Your task to perform on an android device: turn off notifications in google photos Image 0: 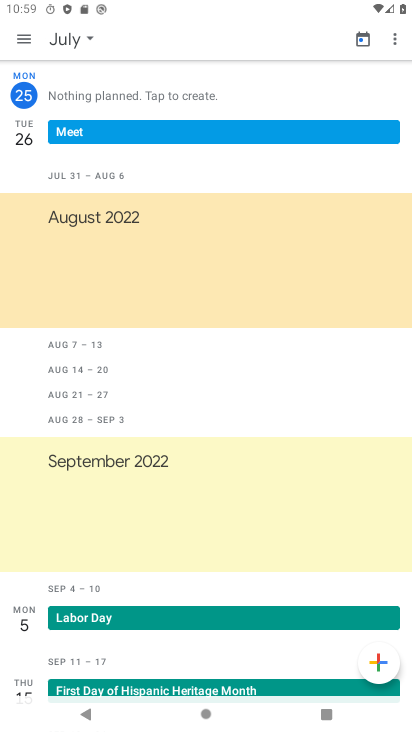
Step 0: press home button
Your task to perform on an android device: turn off notifications in google photos Image 1: 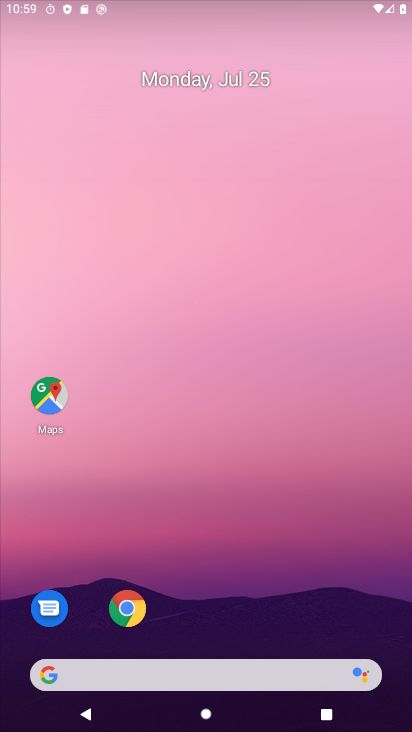
Step 1: drag from (222, 675) to (387, 13)
Your task to perform on an android device: turn off notifications in google photos Image 2: 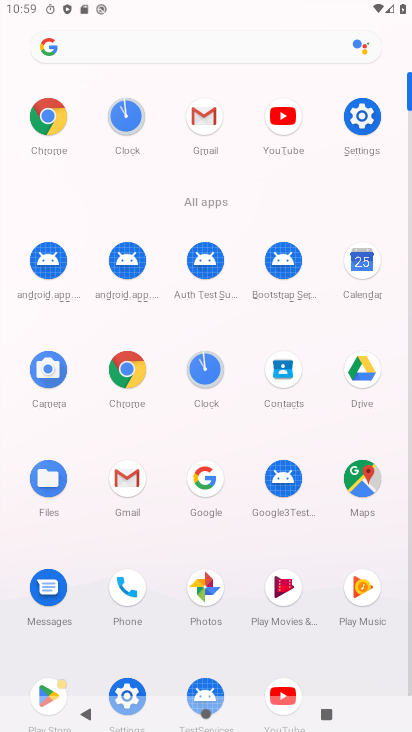
Step 2: click (195, 590)
Your task to perform on an android device: turn off notifications in google photos Image 3: 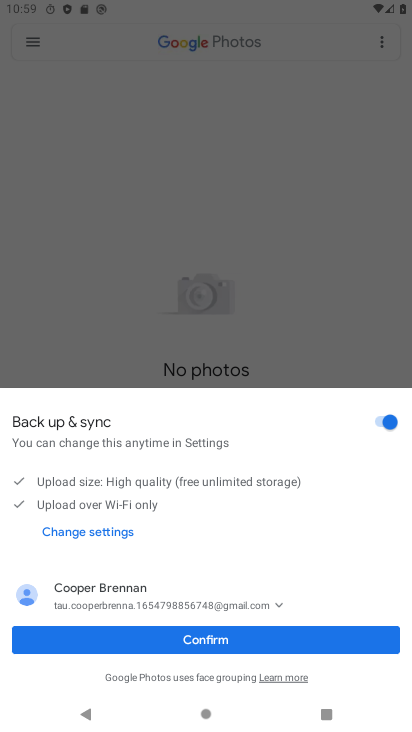
Step 3: press home button
Your task to perform on an android device: turn off notifications in google photos Image 4: 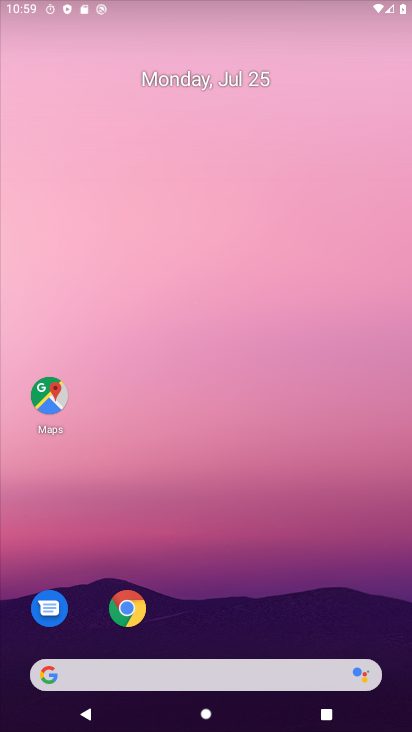
Step 4: drag from (223, 642) to (279, 23)
Your task to perform on an android device: turn off notifications in google photos Image 5: 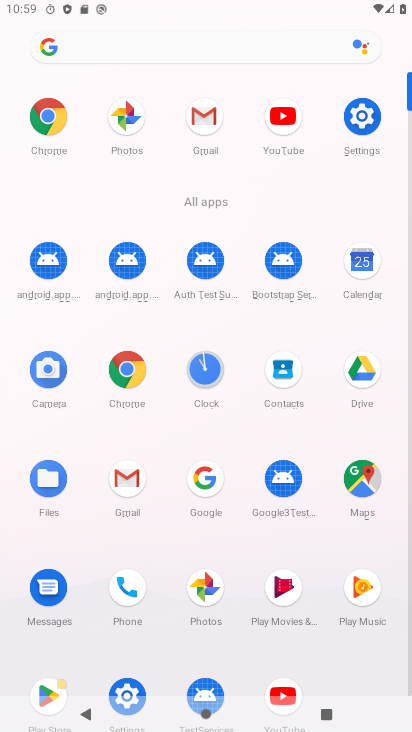
Step 5: click (206, 584)
Your task to perform on an android device: turn off notifications in google photos Image 6: 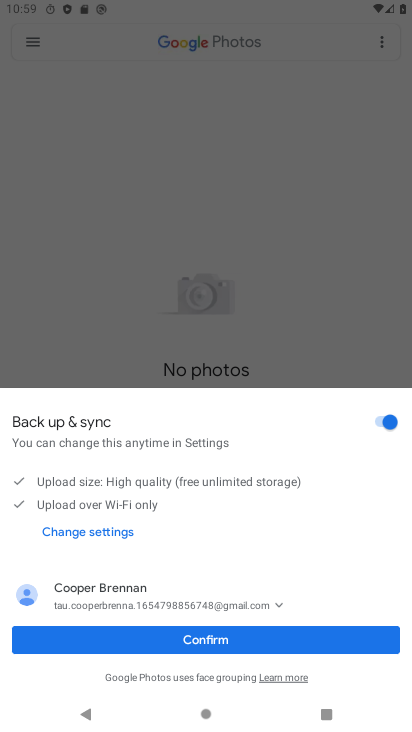
Step 6: click (182, 638)
Your task to perform on an android device: turn off notifications in google photos Image 7: 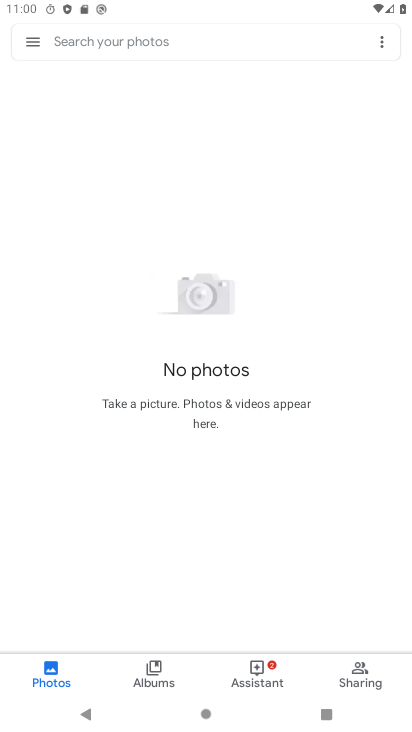
Step 7: click (36, 44)
Your task to perform on an android device: turn off notifications in google photos Image 8: 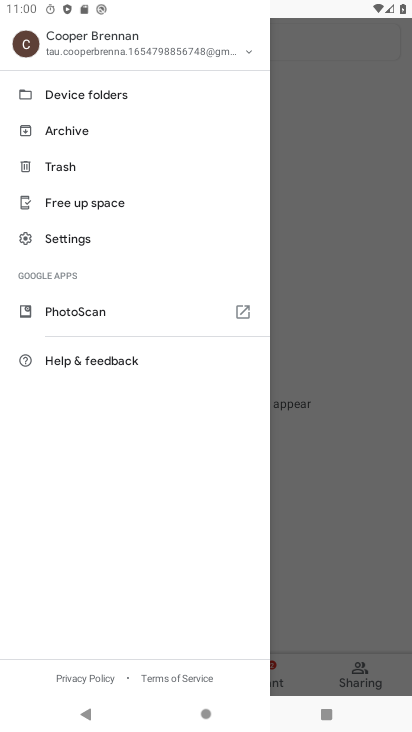
Step 8: click (67, 244)
Your task to perform on an android device: turn off notifications in google photos Image 9: 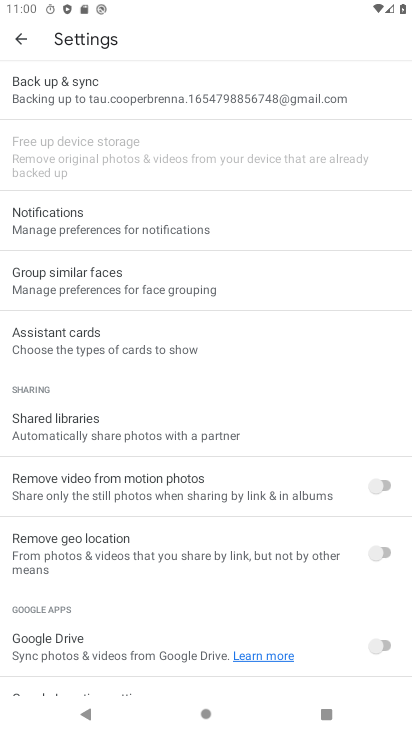
Step 9: click (59, 214)
Your task to perform on an android device: turn off notifications in google photos Image 10: 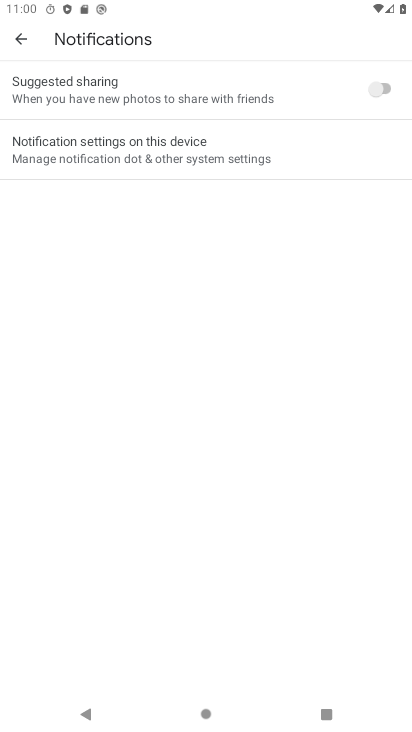
Step 10: click (169, 146)
Your task to perform on an android device: turn off notifications in google photos Image 11: 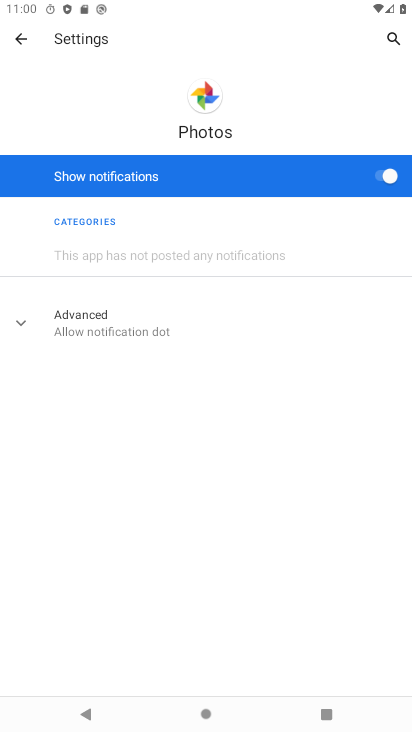
Step 11: click (387, 183)
Your task to perform on an android device: turn off notifications in google photos Image 12: 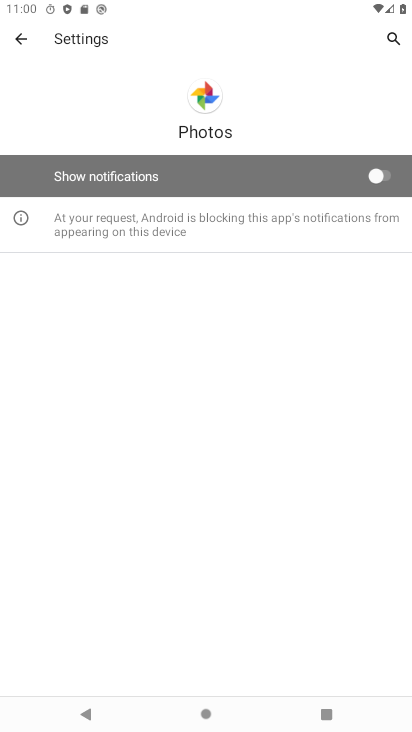
Step 12: task complete